Your task to perform on an android device: move an email to a new category in the gmail app Image 0: 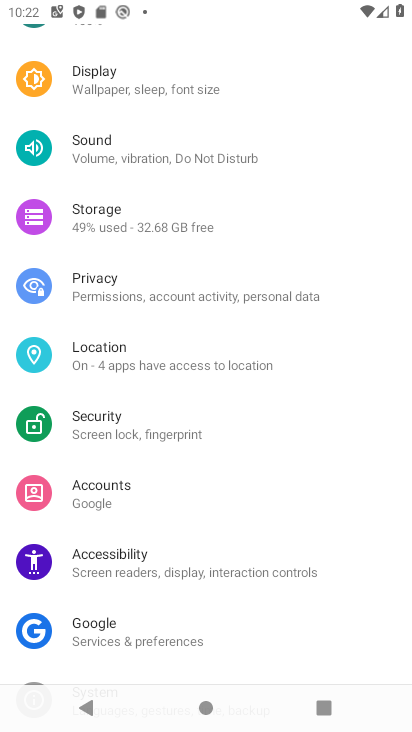
Step 0: press back button
Your task to perform on an android device: move an email to a new category in the gmail app Image 1: 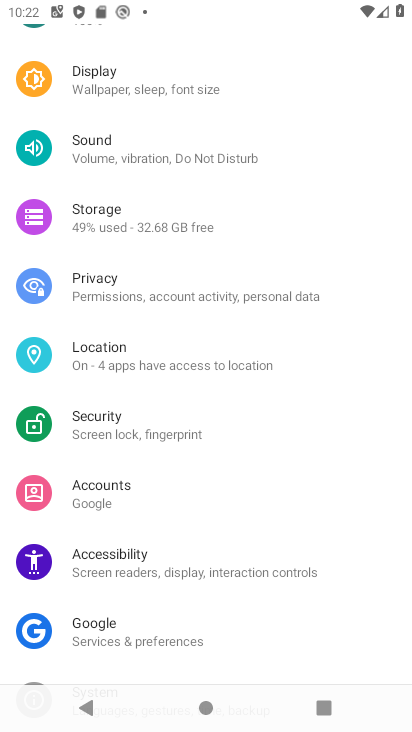
Step 1: press back button
Your task to perform on an android device: move an email to a new category in the gmail app Image 2: 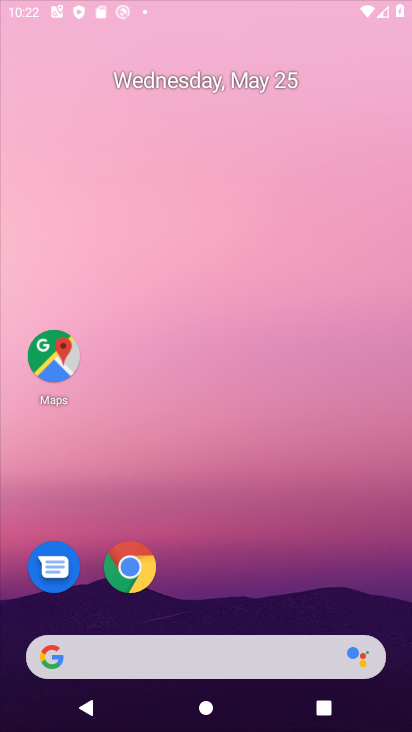
Step 2: press back button
Your task to perform on an android device: move an email to a new category in the gmail app Image 3: 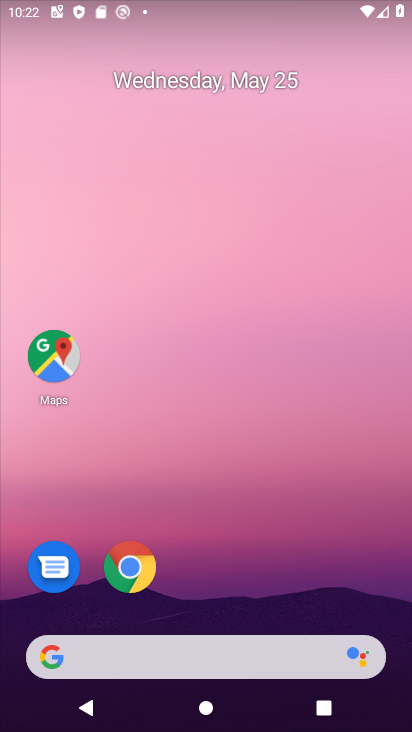
Step 3: drag from (316, 576) to (311, 5)
Your task to perform on an android device: move an email to a new category in the gmail app Image 4: 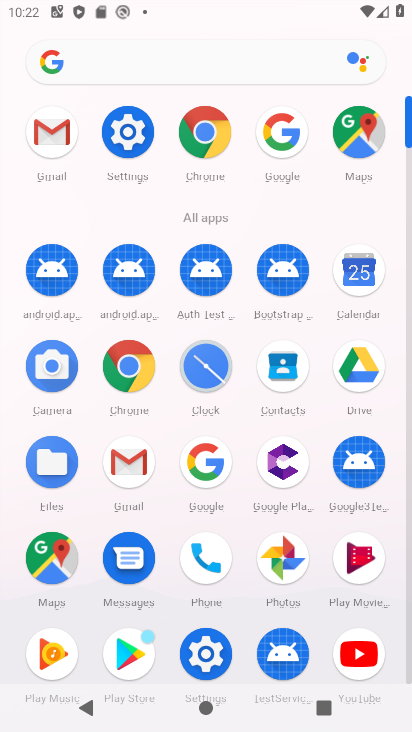
Step 4: click (126, 473)
Your task to perform on an android device: move an email to a new category in the gmail app Image 5: 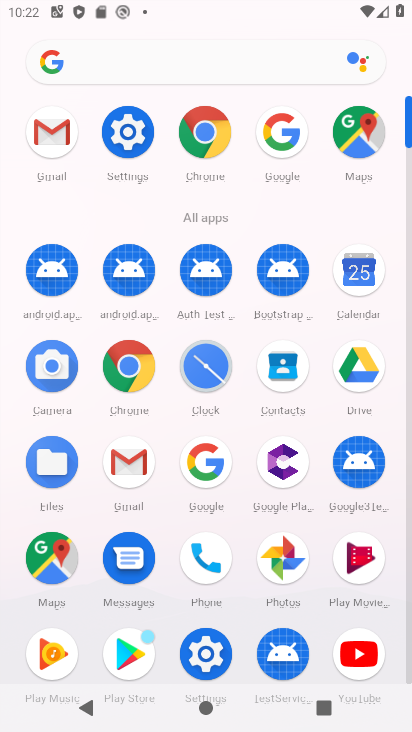
Step 5: click (126, 473)
Your task to perform on an android device: move an email to a new category in the gmail app Image 6: 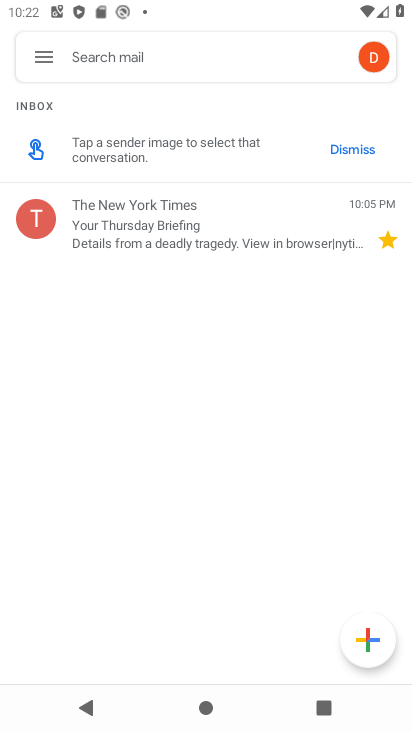
Step 6: click (125, 468)
Your task to perform on an android device: move an email to a new category in the gmail app Image 7: 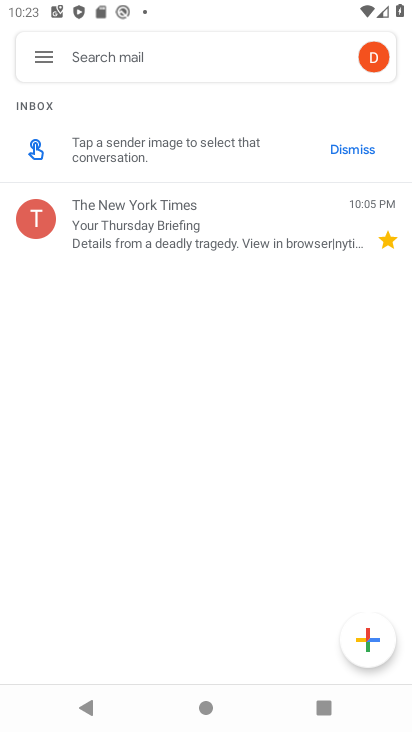
Step 7: click (47, 57)
Your task to perform on an android device: move an email to a new category in the gmail app Image 8: 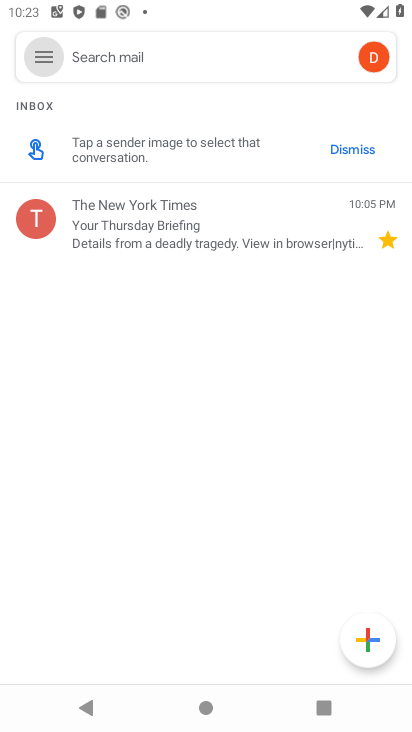
Step 8: click (47, 57)
Your task to perform on an android device: move an email to a new category in the gmail app Image 9: 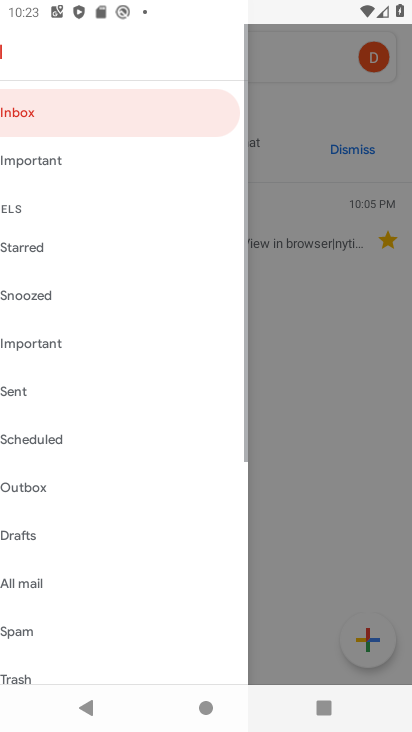
Step 9: click (46, 57)
Your task to perform on an android device: move an email to a new category in the gmail app Image 10: 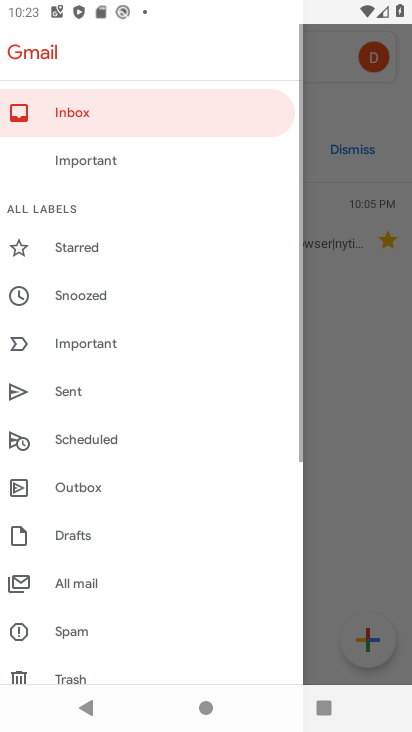
Step 10: drag from (46, 57) to (107, 665)
Your task to perform on an android device: move an email to a new category in the gmail app Image 11: 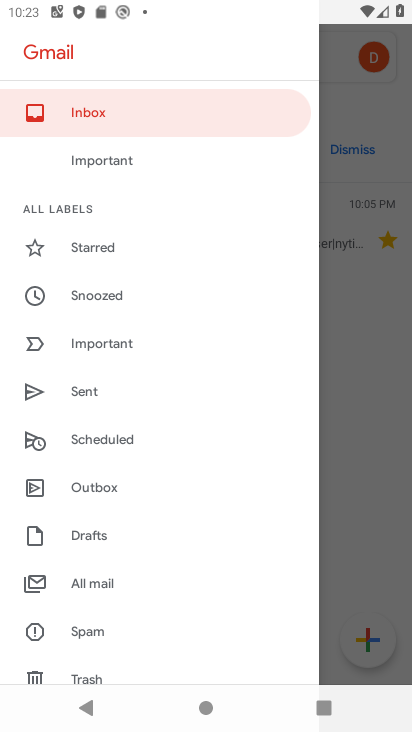
Step 11: drag from (102, 669) to (86, 609)
Your task to perform on an android device: move an email to a new category in the gmail app Image 12: 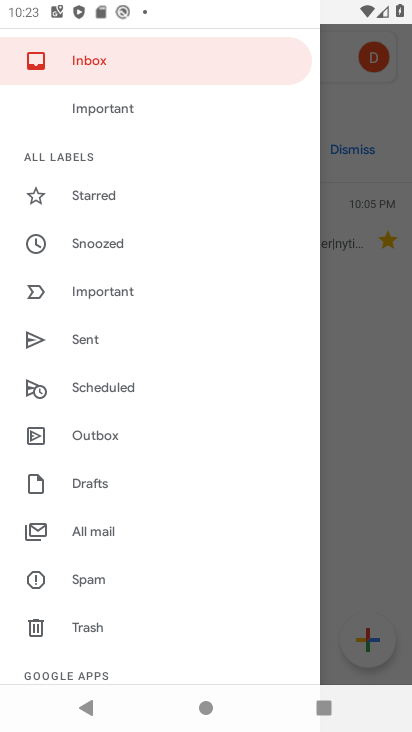
Step 12: click (88, 521)
Your task to perform on an android device: move an email to a new category in the gmail app Image 13: 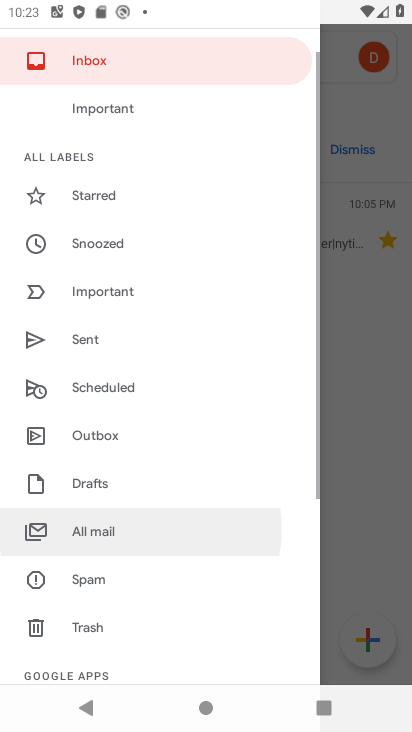
Step 13: click (92, 525)
Your task to perform on an android device: move an email to a new category in the gmail app Image 14: 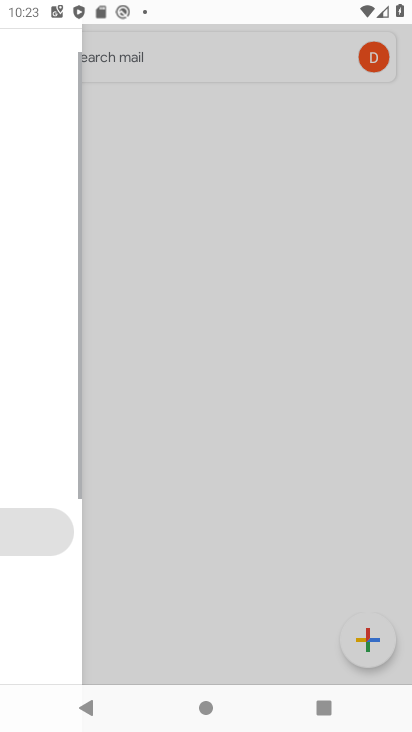
Step 14: click (92, 529)
Your task to perform on an android device: move an email to a new category in the gmail app Image 15: 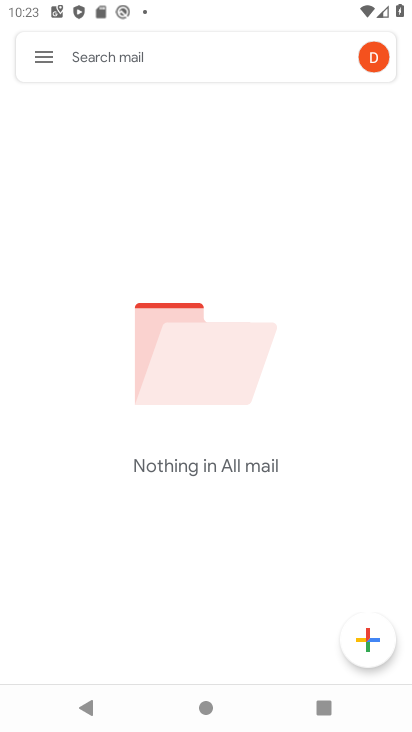
Step 15: task complete